Your task to perform on an android device: Go to ESPN.com Image 0: 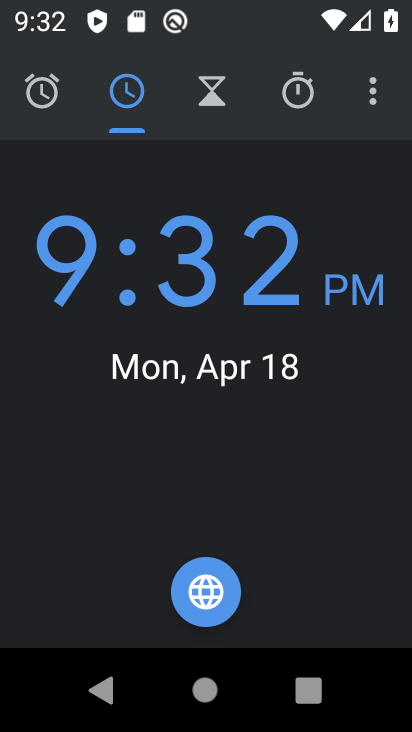
Step 0: press home button
Your task to perform on an android device: Go to ESPN.com Image 1: 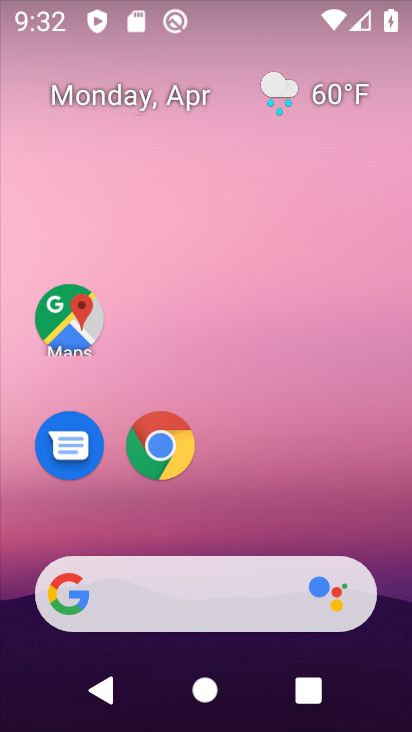
Step 1: click (150, 442)
Your task to perform on an android device: Go to ESPN.com Image 2: 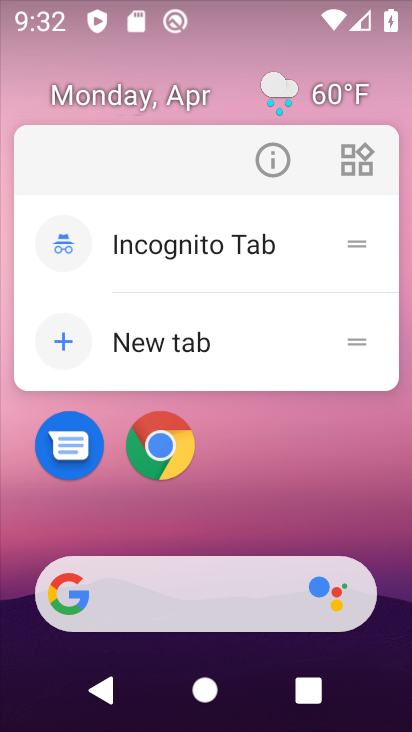
Step 2: click (150, 445)
Your task to perform on an android device: Go to ESPN.com Image 3: 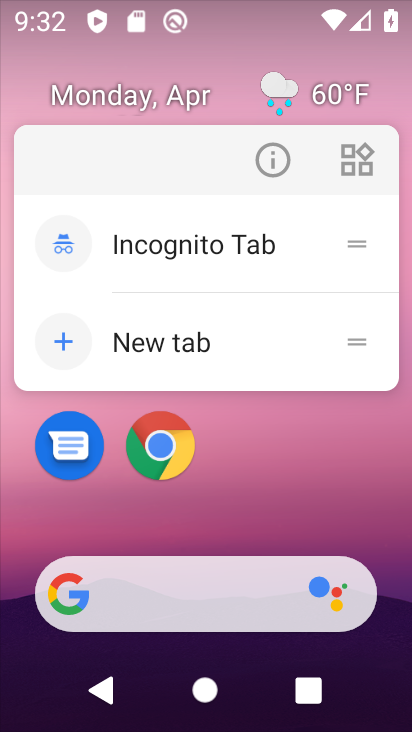
Step 3: click (150, 445)
Your task to perform on an android device: Go to ESPN.com Image 4: 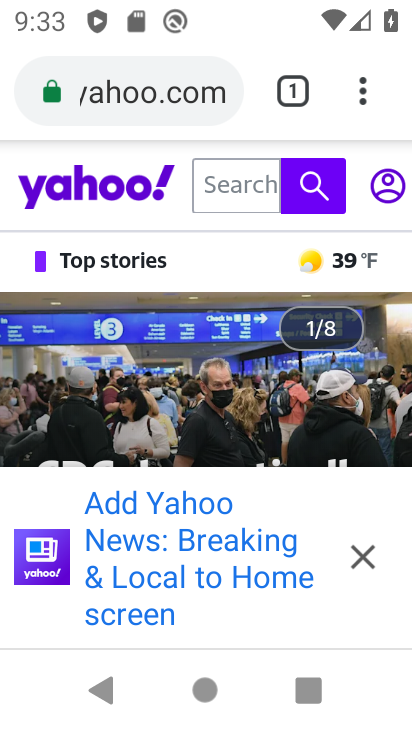
Step 4: click (362, 88)
Your task to perform on an android device: Go to ESPN.com Image 5: 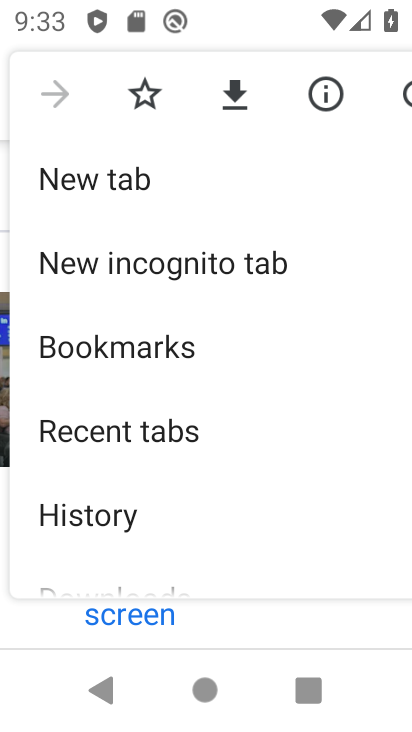
Step 5: click (258, 170)
Your task to perform on an android device: Go to ESPN.com Image 6: 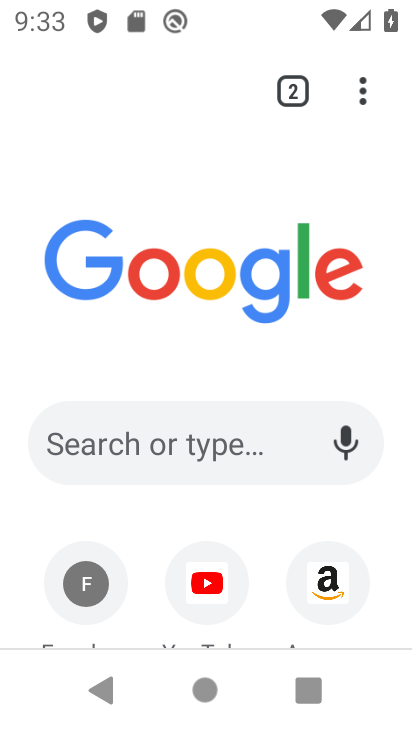
Step 6: click (219, 439)
Your task to perform on an android device: Go to ESPN.com Image 7: 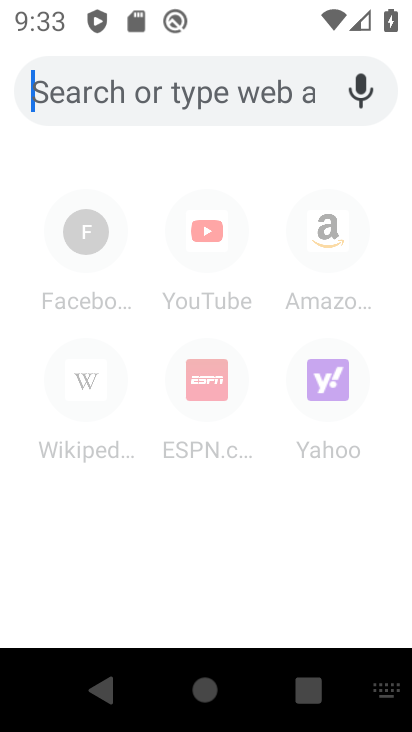
Step 7: type "espn.com"
Your task to perform on an android device: Go to ESPN.com Image 8: 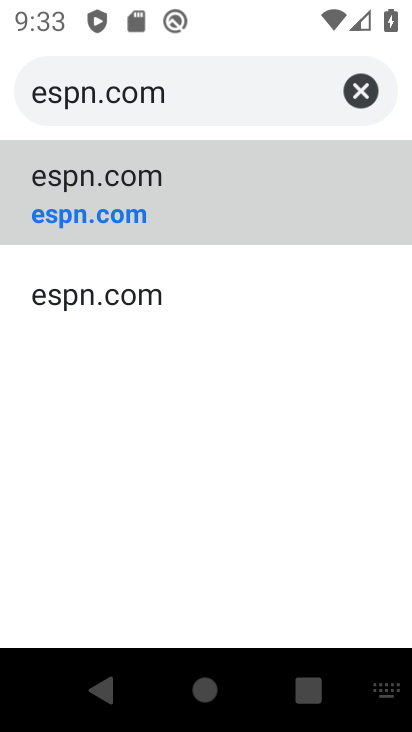
Step 8: click (318, 213)
Your task to perform on an android device: Go to ESPN.com Image 9: 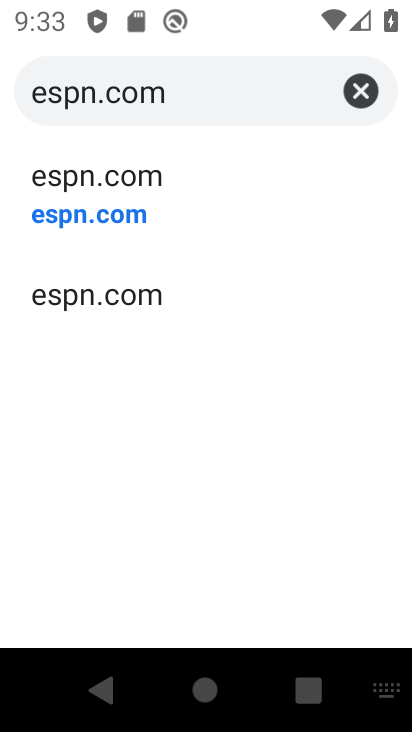
Step 9: click (135, 196)
Your task to perform on an android device: Go to ESPN.com Image 10: 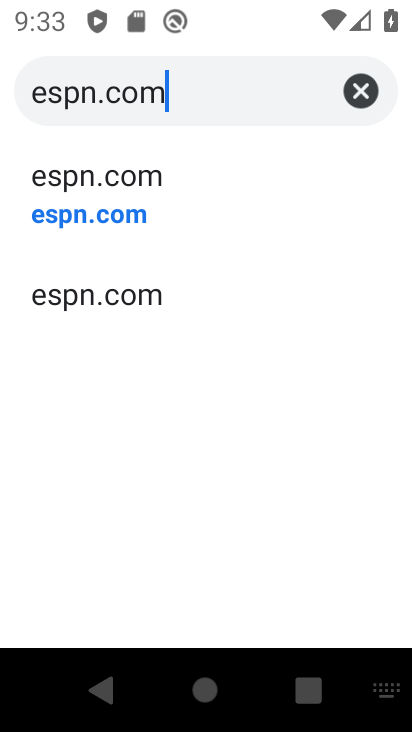
Step 10: click (353, 91)
Your task to perform on an android device: Go to ESPN.com Image 11: 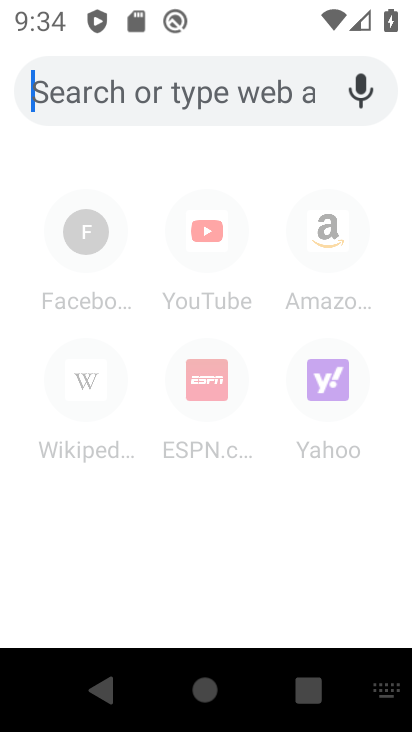
Step 11: type "ESPN.com"
Your task to perform on an android device: Go to ESPN.com Image 12: 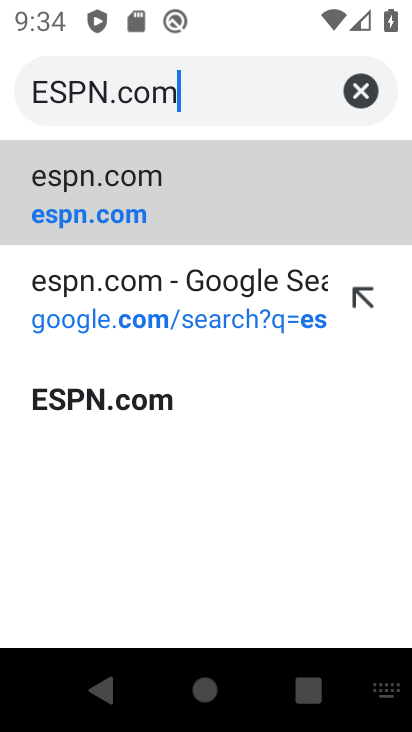
Step 12: click (153, 392)
Your task to perform on an android device: Go to ESPN.com Image 13: 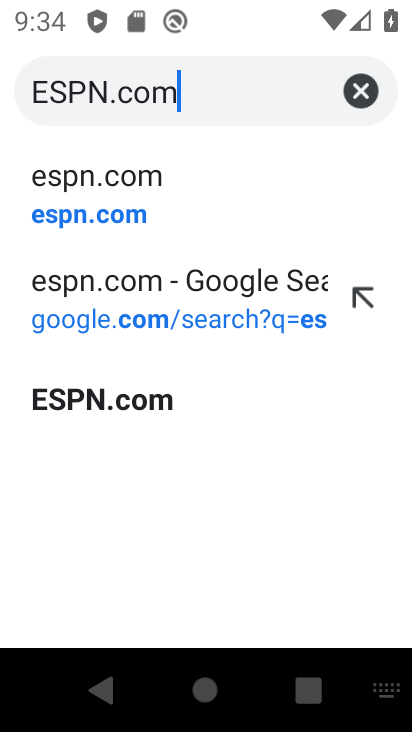
Step 13: click (153, 391)
Your task to perform on an android device: Go to ESPN.com Image 14: 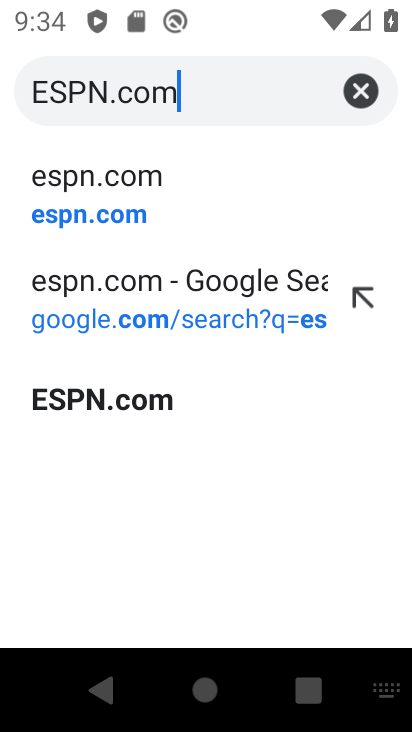
Step 14: click (170, 316)
Your task to perform on an android device: Go to ESPN.com Image 15: 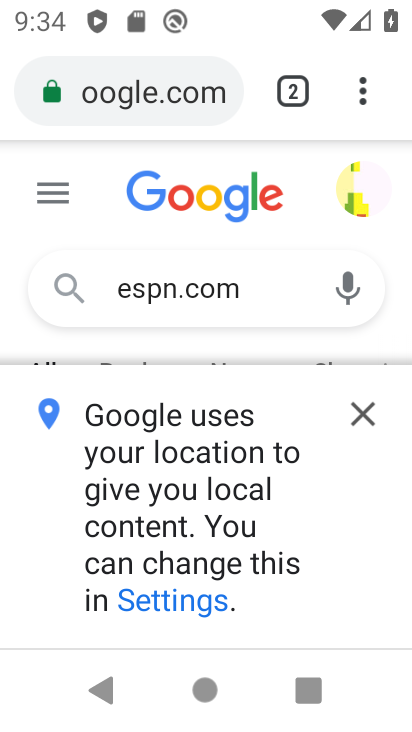
Step 15: click (360, 400)
Your task to perform on an android device: Go to ESPN.com Image 16: 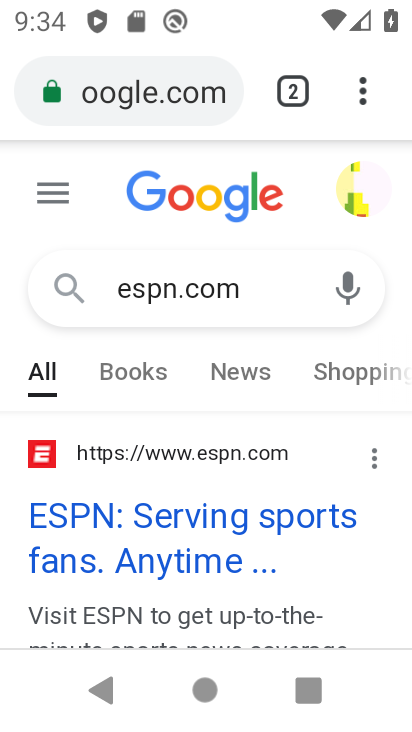
Step 16: click (248, 512)
Your task to perform on an android device: Go to ESPN.com Image 17: 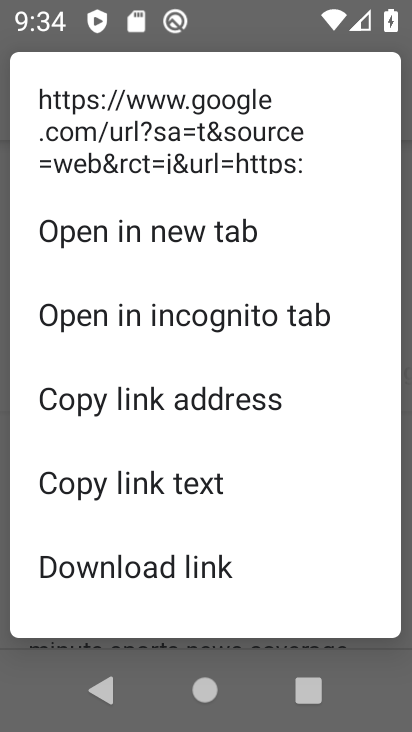
Step 17: click (233, 223)
Your task to perform on an android device: Go to ESPN.com Image 18: 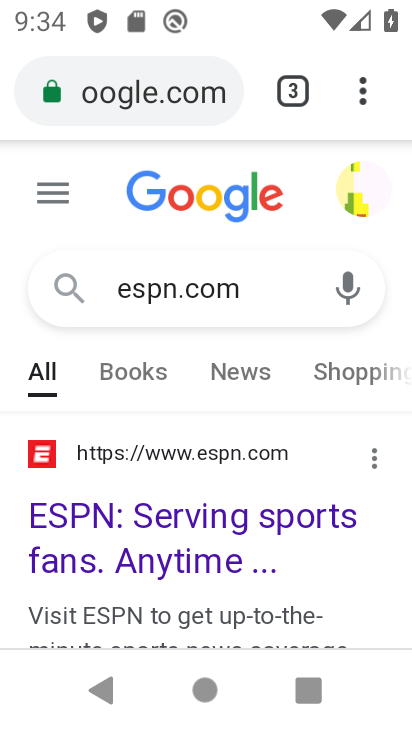
Step 18: drag from (212, 561) to (237, 273)
Your task to perform on an android device: Go to ESPN.com Image 19: 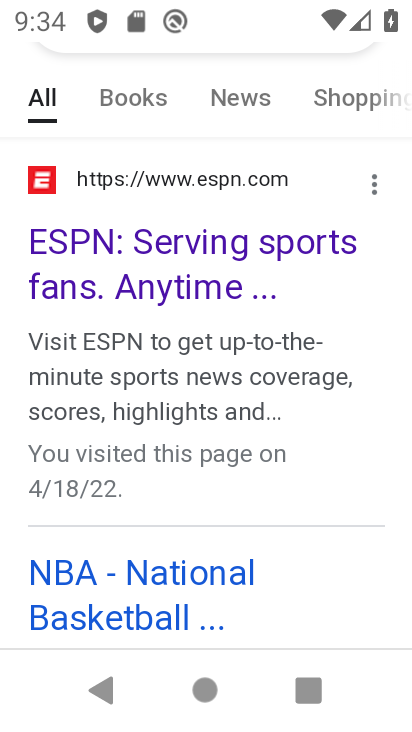
Step 19: click (237, 237)
Your task to perform on an android device: Go to ESPN.com Image 20: 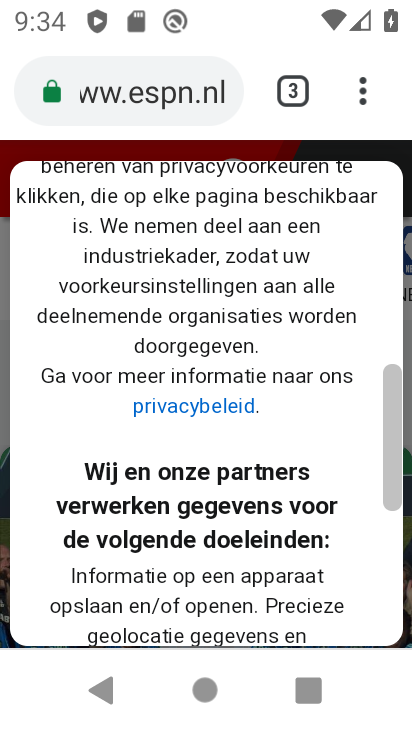
Step 20: task complete